Your task to perform on an android device: turn on bluetooth scan Image 0: 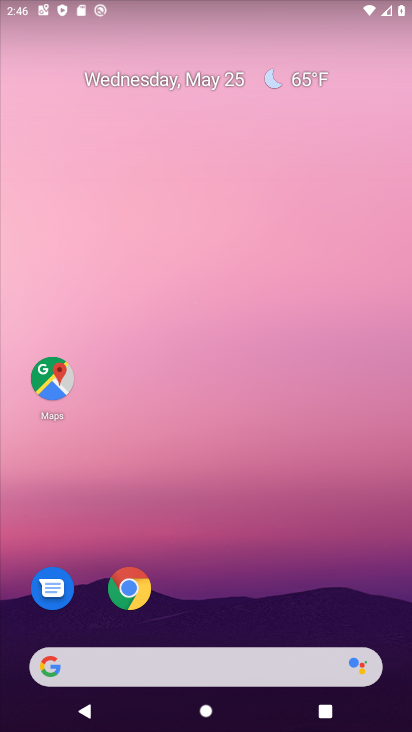
Step 0: drag from (269, 459) to (308, 183)
Your task to perform on an android device: turn on bluetooth scan Image 1: 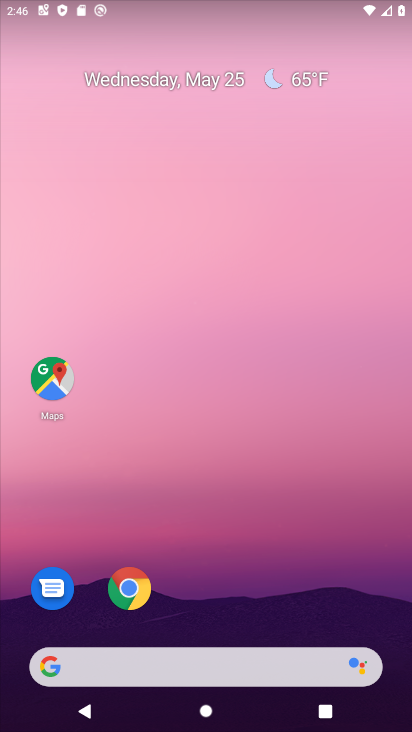
Step 1: drag from (230, 578) to (287, 55)
Your task to perform on an android device: turn on bluetooth scan Image 2: 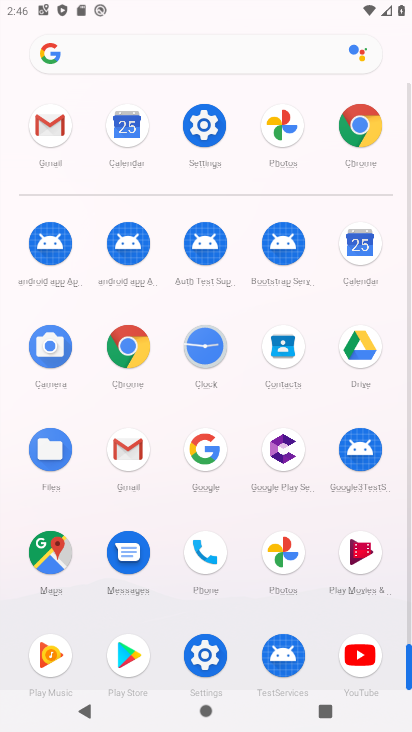
Step 2: click (202, 125)
Your task to perform on an android device: turn on bluetooth scan Image 3: 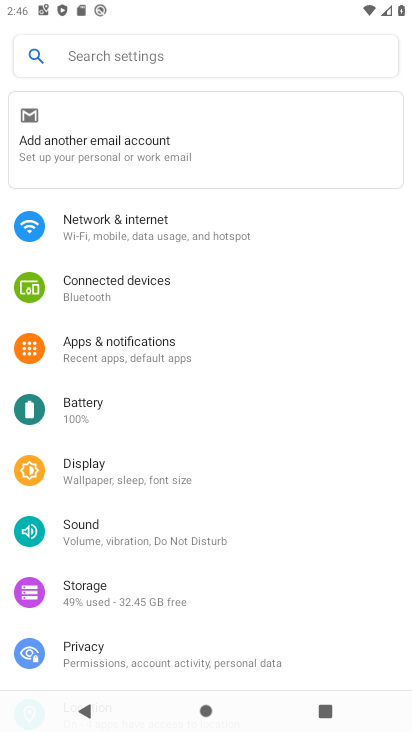
Step 3: drag from (122, 557) to (185, 167)
Your task to perform on an android device: turn on bluetooth scan Image 4: 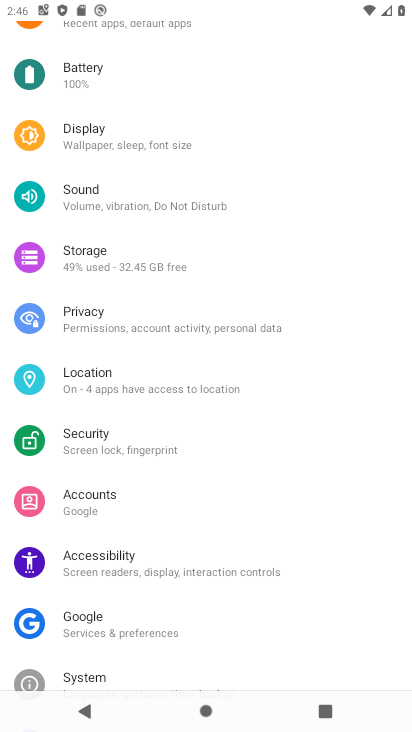
Step 4: click (143, 388)
Your task to perform on an android device: turn on bluetooth scan Image 5: 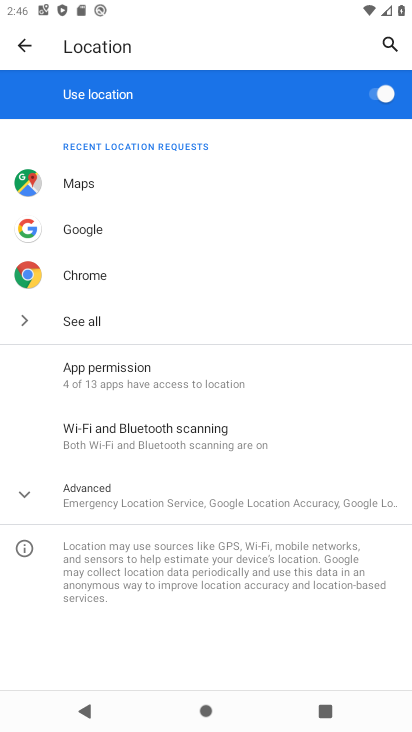
Step 5: click (166, 439)
Your task to perform on an android device: turn on bluetooth scan Image 6: 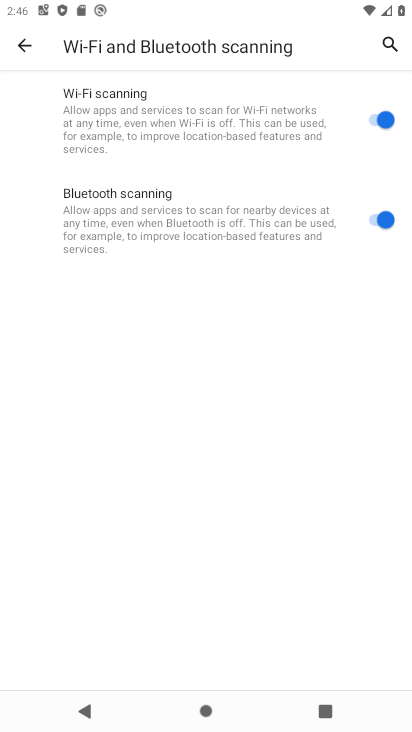
Step 6: task complete